Your task to perform on an android device: Open Chrome and go to the settings page Image 0: 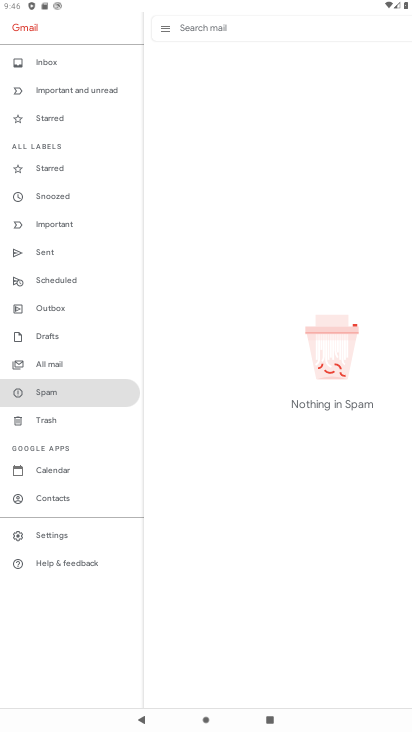
Step 0: press home button
Your task to perform on an android device: Open Chrome and go to the settings page Image 1: 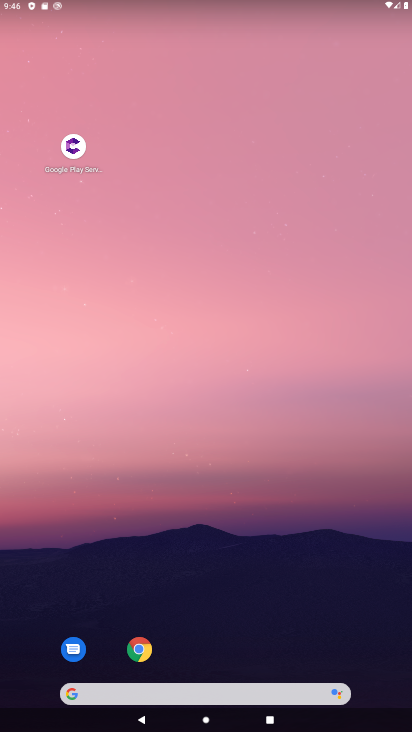
Step 1: click (132, 653)
Your task to perform on an android device: Open Chrome and go to the settings page Image 2: 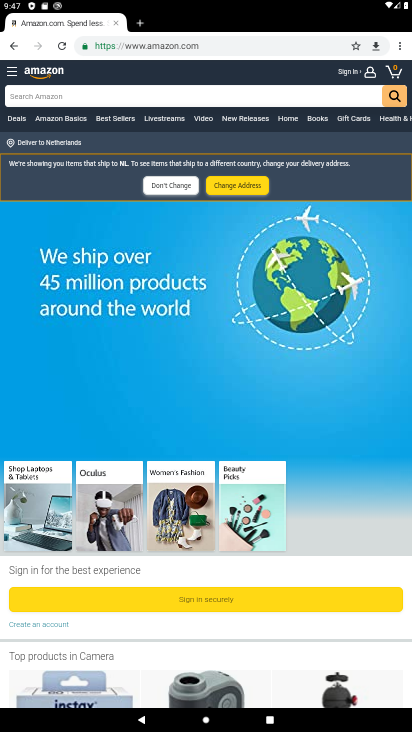
Step 2: click (402, 42)
Your task to perform on an android device: Open Chrome and go to the settings page Image 3: 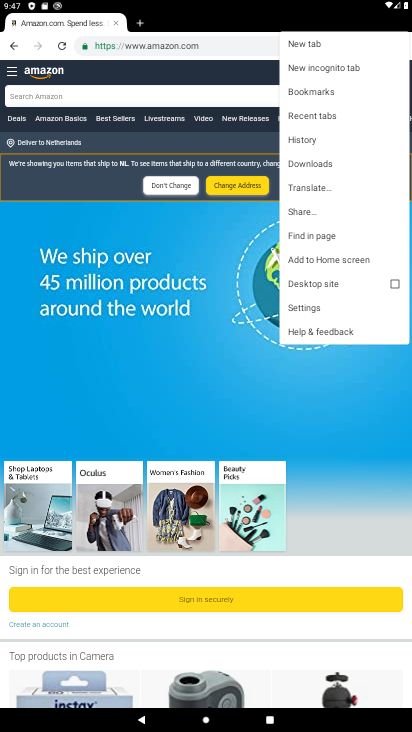
Step 3: click (323, 309)
Your task to perform on an android device: Open Chrome and go to the settings page Image 4: 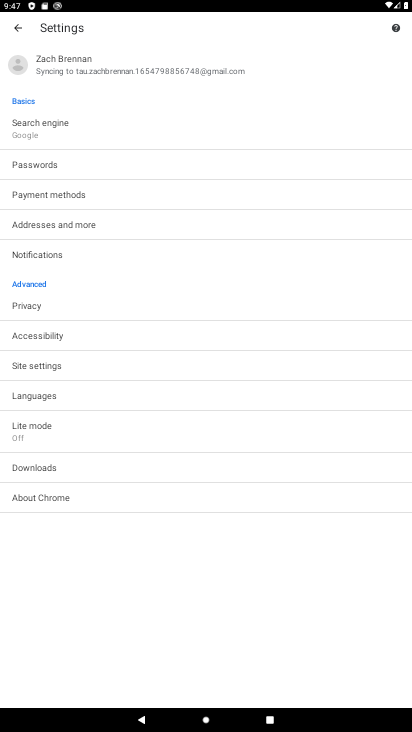
Step 4: task complete